Your task to perform on an android device: Search for Mexican restaurants on Maps Image 0: 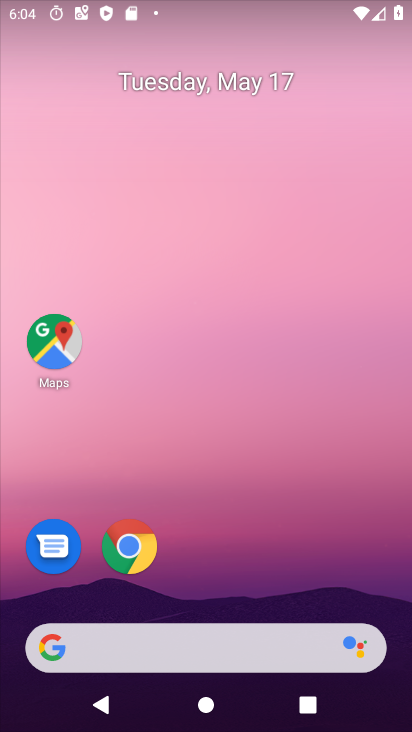
Step 0: click (47, 353)
Your task to perform on an android device: Search for Mexican restaurants on Maps Image 1: 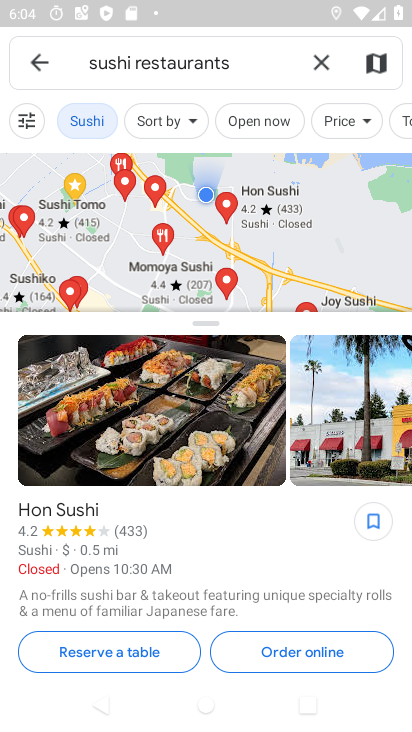
Step 1: click (328, 64)
Your task to perform on an android device: Search for Mexican restaurants on Maps Image 2: 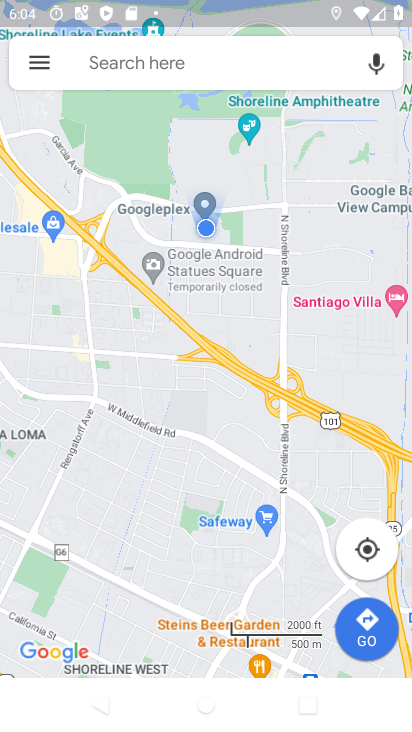
Step 2: click (223, 68)
Your task to perform on an android device: Search for Mexican restaurants on Maps Image 3: 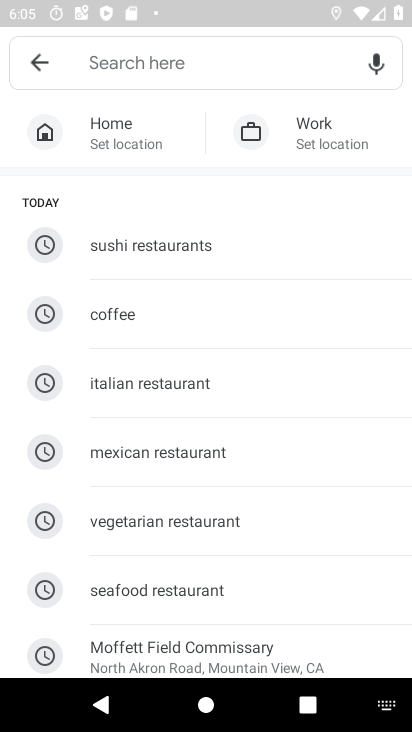
Step 3: click (157, 456)
Your task to perform on an android device: Search for Mexican restaurants on Maps Image 4: 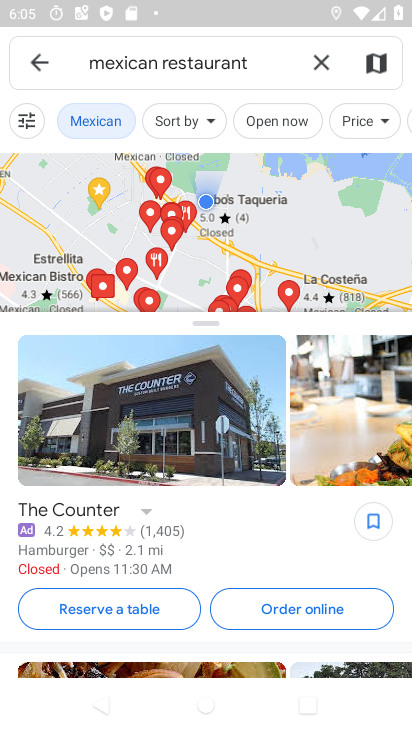
Step 4: task complete